Your task to perform on an android device: all mails in gmail Image 0: 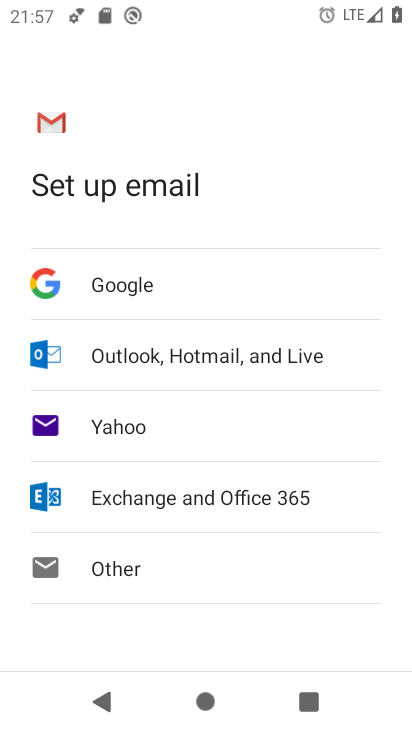
Step 0: press home button
Your task to perform on an android device: all mails in gmail Image 1: 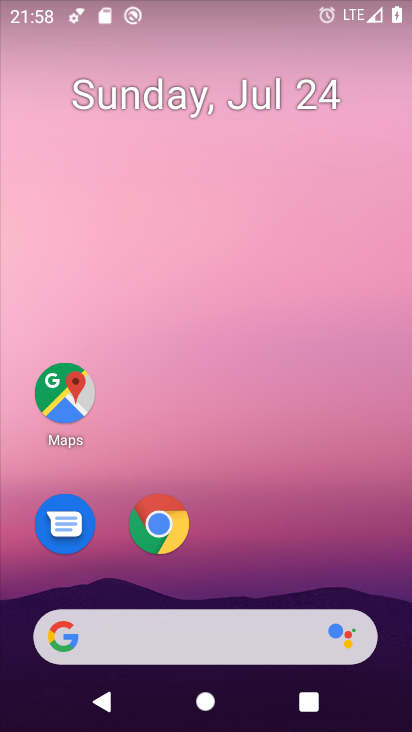
Step 1: drag from (261, 553) to (208, 23)
Your task to perform on an android device: all mails in gmail Image 2: 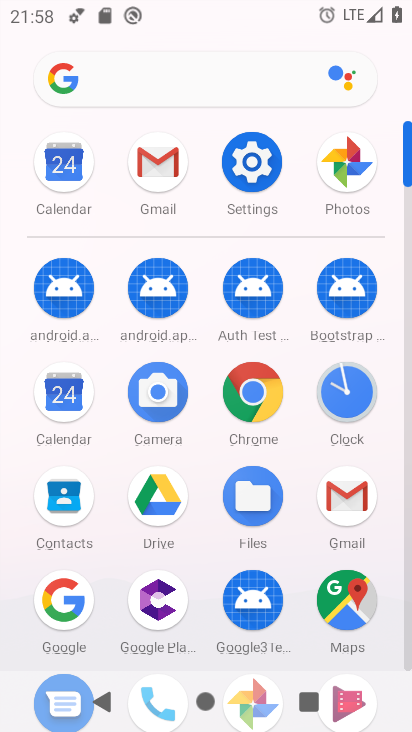
Step 2: click (148, 164)
Your task to perform on an android device: all mails in gmail Image 3: 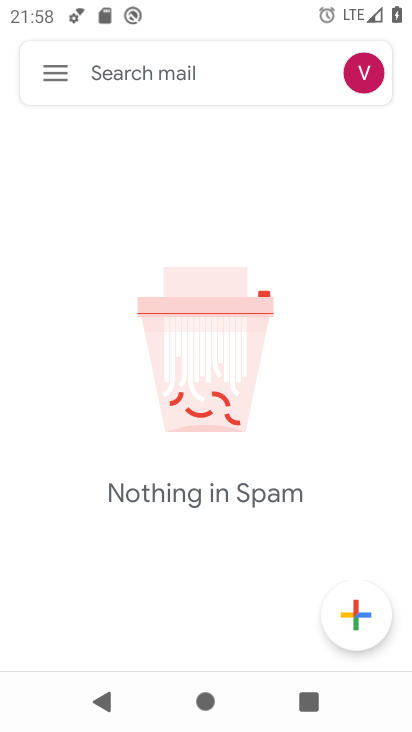
Step 3: click (49, 72)
Your task to perform on an android device: all mails in gmail Image 4: 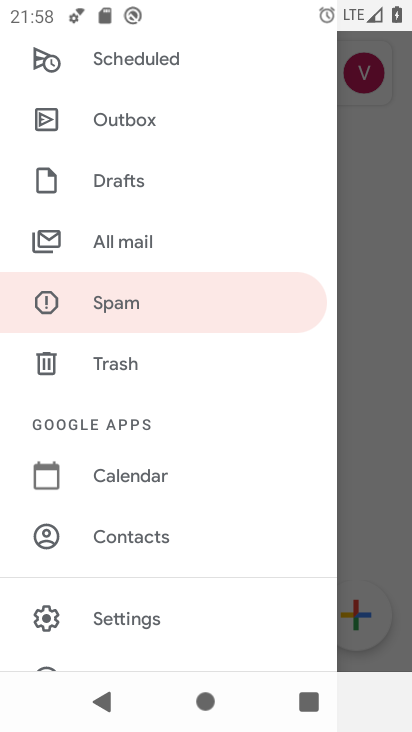
Step 4: click (118, 227)
Your task to perform on an android device: all mails in gmail Image 5: 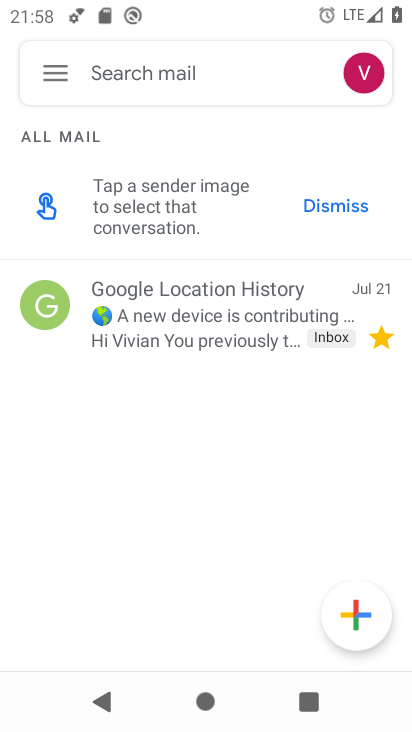
Step 5: task complete